Your task to perform on an android device: open app "TextNow: Call + Text Unlimited" (install if not already installed) and enter user name: "stoke@yahoo.com" and password: "prompted" Image 0: 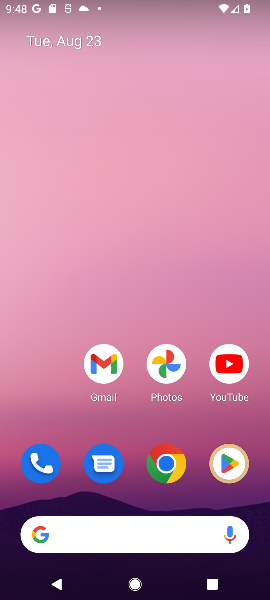
Step 0: click (225, 464)
Your task to perform on an android device: open app "TextNow: Call + Text Unlimited" (install if not already installed) and enter user name: "stoke@yahoo.com" and password: "prompted" Image 1: 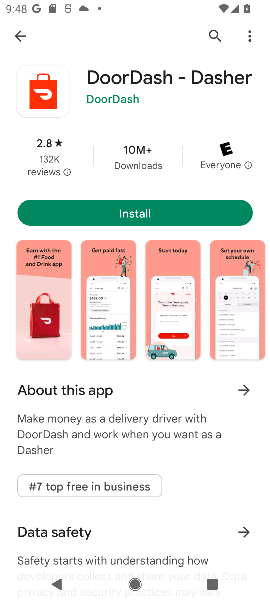
Step 1: click (205, 35)
Your task to perform on an android device: open app "TextNow: Call + Text Unlimited" (install if not already installed) and enter user name: "stoke@yahoo.com" and password: "prompted" Image 2: 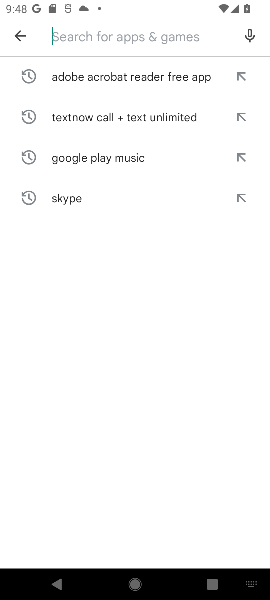
Step 2: type "TextNow: Call + Text Unlimited"
Your task to perform on an android device: open app "TextNow: Call + Text Unlimited" (install if not already installed) and enter user name: "stoke@yahoo.com" and password: "prompted" Image 3: 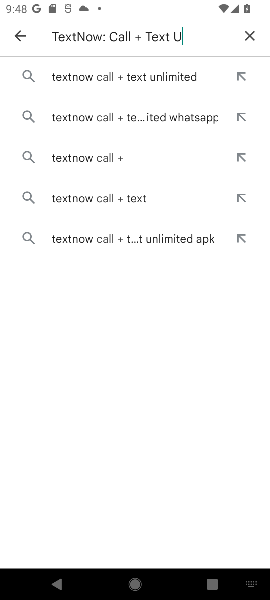
Step 3: type ""
Your task to perform on an android device: open app "TextNow: Call + Text Unlimited" (install if not already installed) and enter user name: "stoke@yahoo.com" and password: "prompted" Image 4: 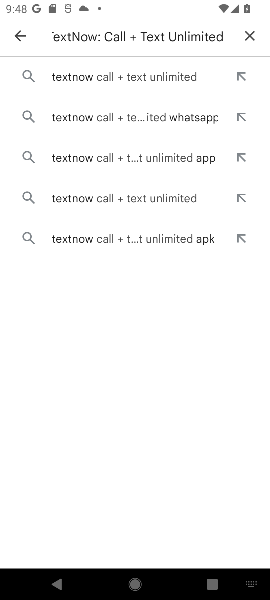
Step 4: click (132, 79)
Your task to perform on an android device: open app "TextNow: Call + Text Unlimited" (install if not already installed) and enter user name: "stoke@yahoo.com" and password: "prompted" Image 5: 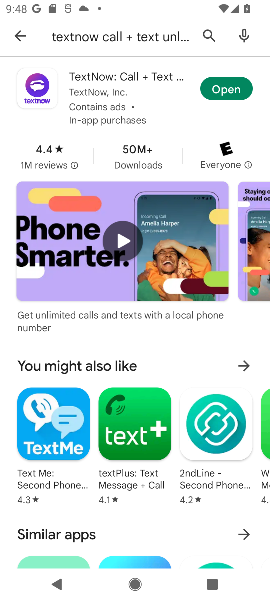
Step 5: click (237, 89)
Your task to perform on an android device: open app "TextNow: Call + Text Unlimited" (install if not already installed) and enter user name: "stoke@yahoo.com" and password: "prompted" Image 6: 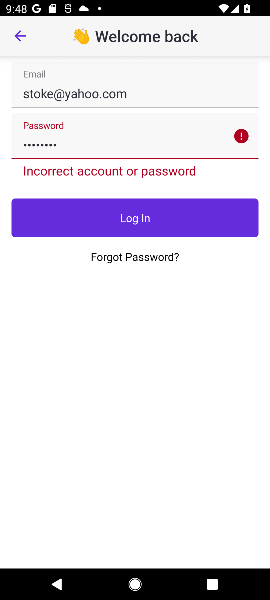
Step 6: task complete